Your task to perform on an android device: Open Google Chrome and click the shortcut for Amazon.com Image 0: 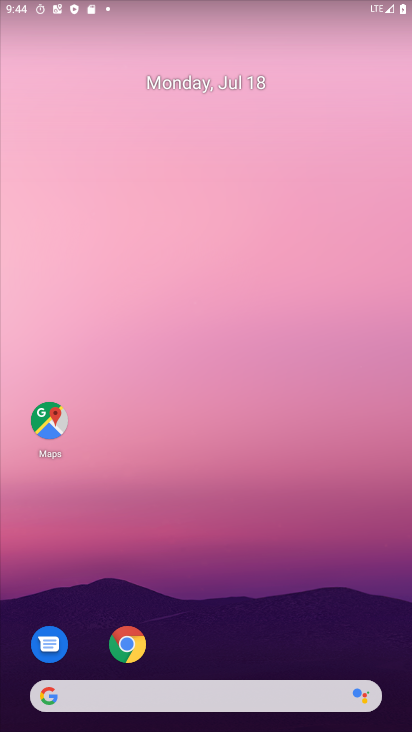
Step 0: click (126, 660)
Your task to perform on an android device: Open Google Chrome and click the shortcut for Amazon.com Image 1: 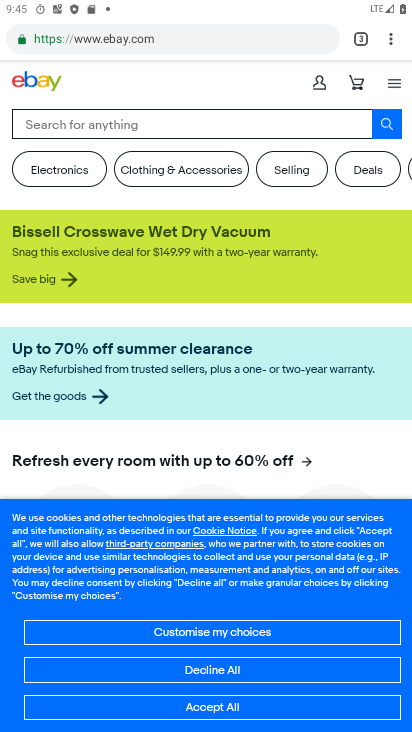
Step 1: click (382, 38)
Your task to perform on an android device: Open Google Chrome and click the shortcut for Amazon.com Image 2: 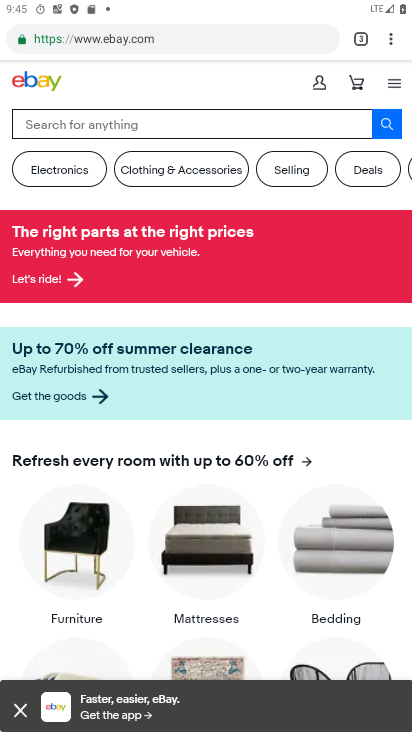
Step 2: click (358, 43)
Your task to perform on an android device: Open Google Chrome and click the shortcut for Amazon.com Image 3: 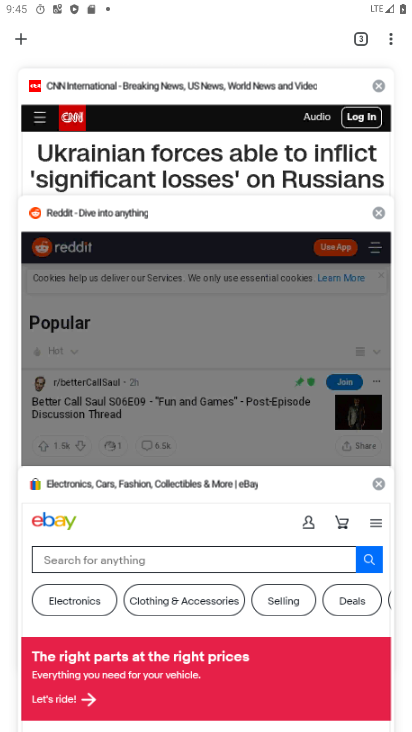
Step 3: click (14, 35)
Your task to perform on an android device: Open Google Chrome and click the shortcut for Amazon.com Image 4: 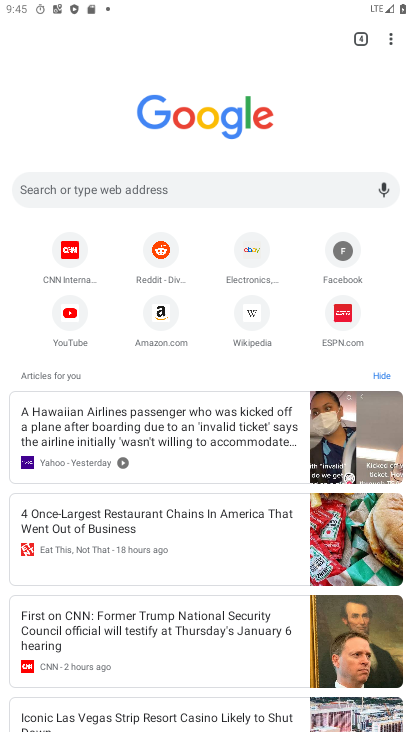
Step 4: click (158, 316)
Your task to perform on an android device: Open Google Chrome and click the shortcut for Amazon.com Image 5: 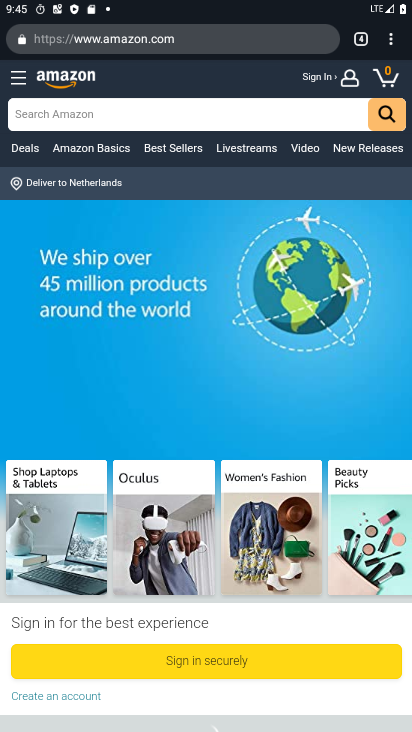
Step 5: task complete